Your task to perform on an android device: Open Google Maps Image 0: 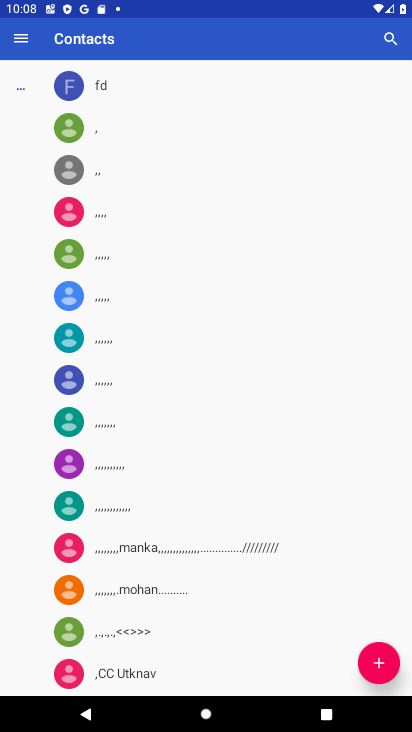
Step 0: press home button
Your task to perform on an android device: Open Google Maps Image 1: 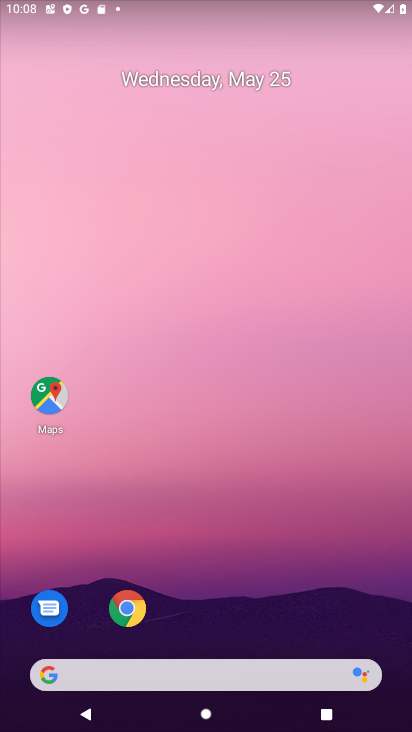
Step 1: click (44, 401)
Your task to perform on an android device: Open Google Maps Image 2: 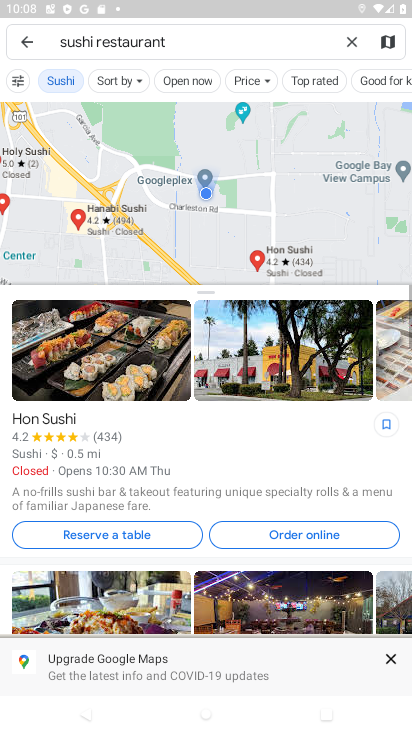
Step 2: task complete